Your task to perform on an android device: Search for sushi restaurants on Maps Image 0: 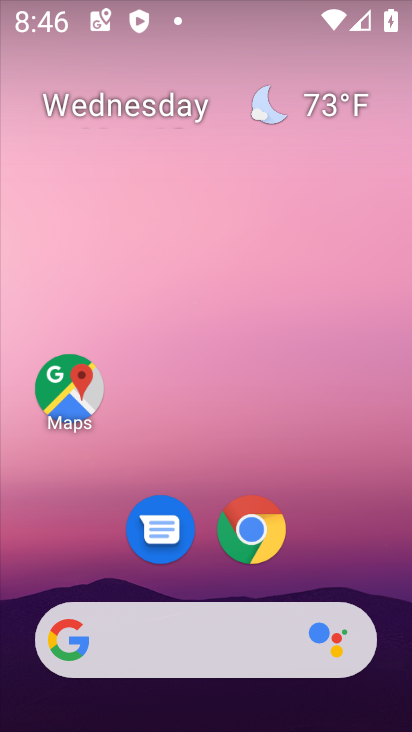
Step 0: drag from (360, 571) to (368, 354)
Your task to perform on an android device: Search for sushi restaurants on Maps Image 1: 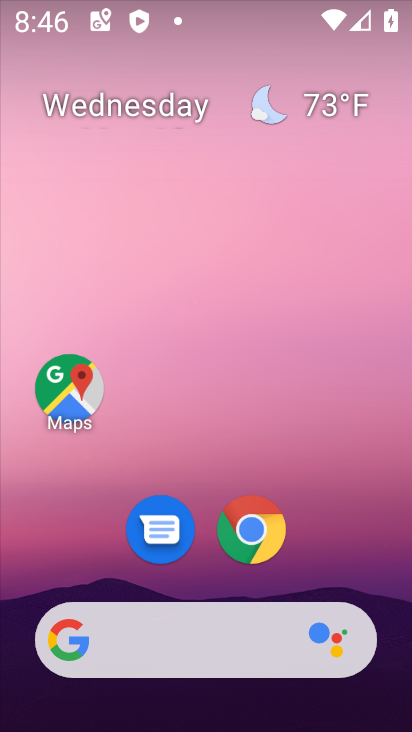
Step 1: drag from (371, 544) to (383, 198)
Your task to perform on an android device: Search for sushi restaurants on Maps Image 2: 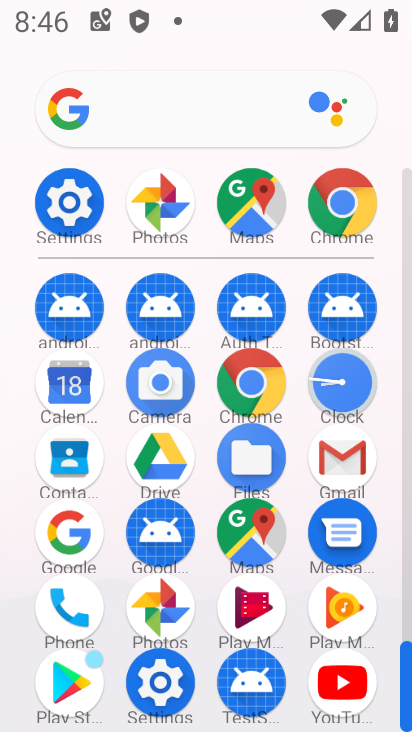
Step 2: click (236, 534)
Your task to perform on an android device: Search for sushi restaurants on Maps Image 3: 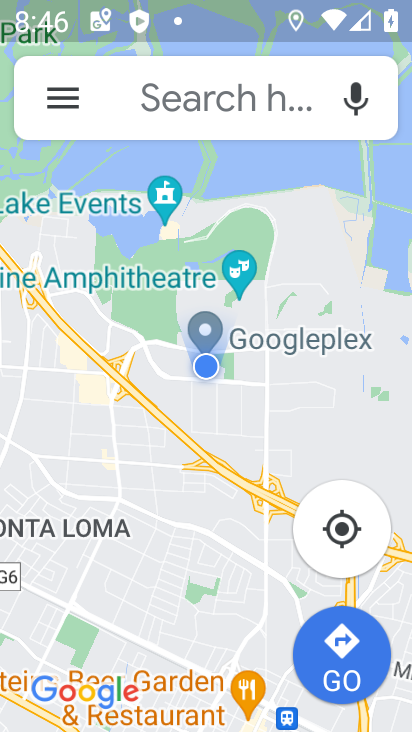
Step 3: click (194, 96)
Your task to perform on an android device: Search for sushi restaurants on Maps Image 4: 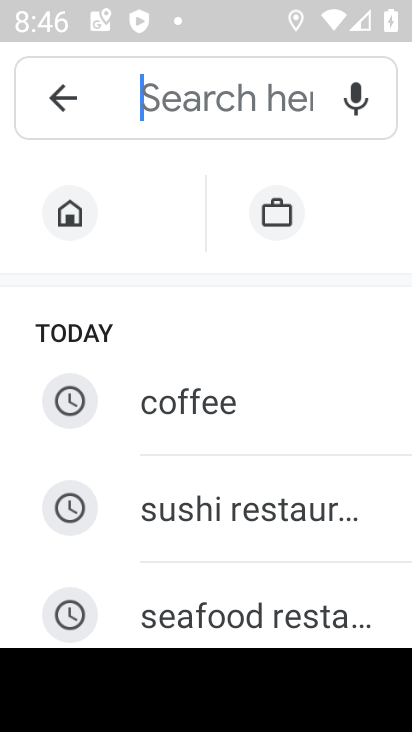
Step 4: type "sushi"
Your task to perform on an android device: Search for sushi restaurants on Maps Image 5: 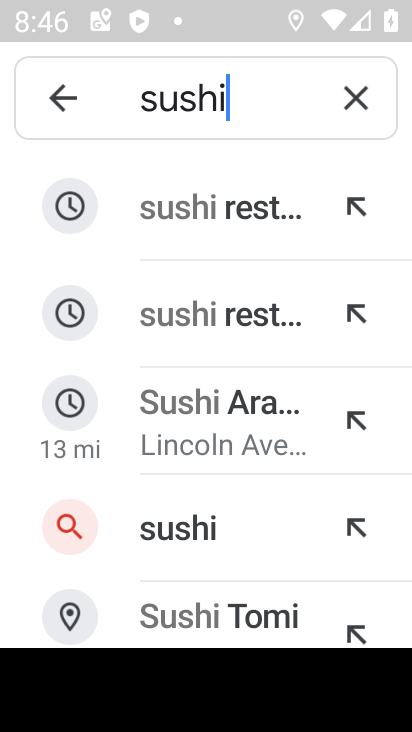
Step 5: click (211, 220)
Your task to perform on an android device: Search for sushi restaurants on Maps Image 6: 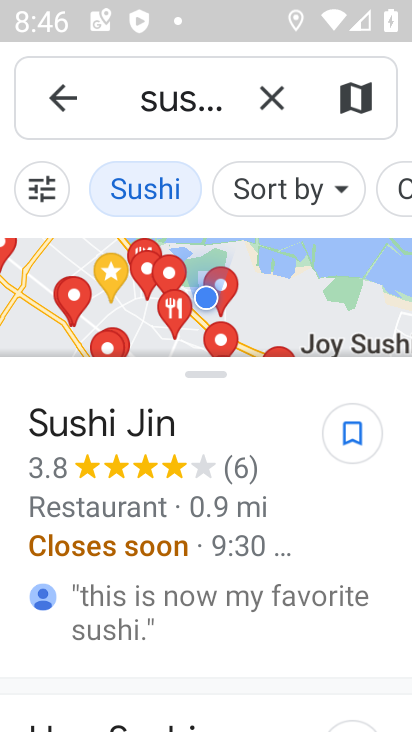
Step 6: task complete